Your task to perform on an android device: add a contact Image 0: 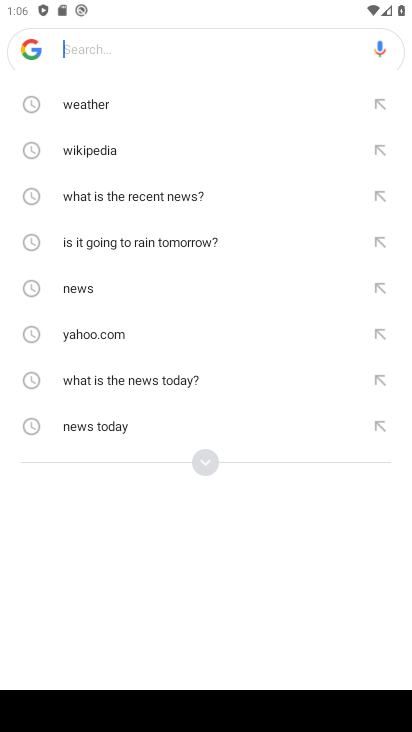
Step 0: press home button
Your task to perform on an android device: add a contact Image 1: 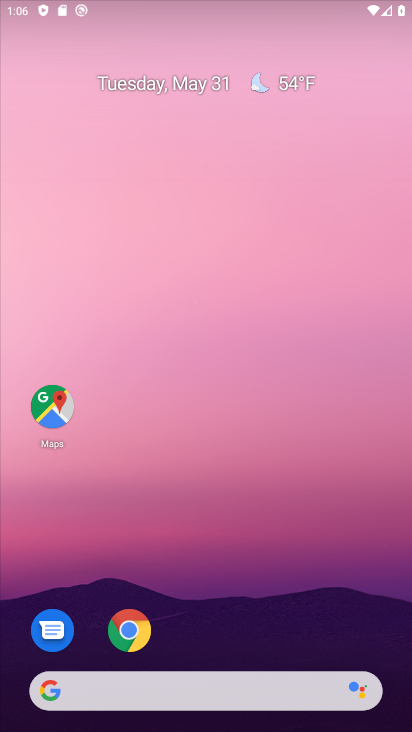
Step 1: drag from (196, 600) to (201, 45)
Your task to perform on an android device: add a contact Image 2: 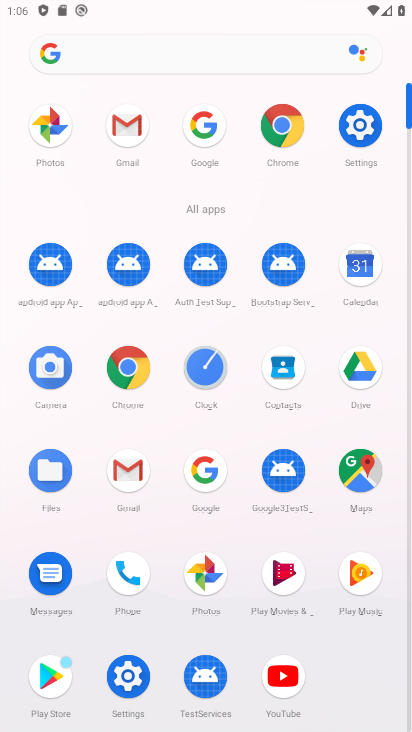
Step 2: click (294, 366)
Your task to perform on an android device: add a contact Image 3: 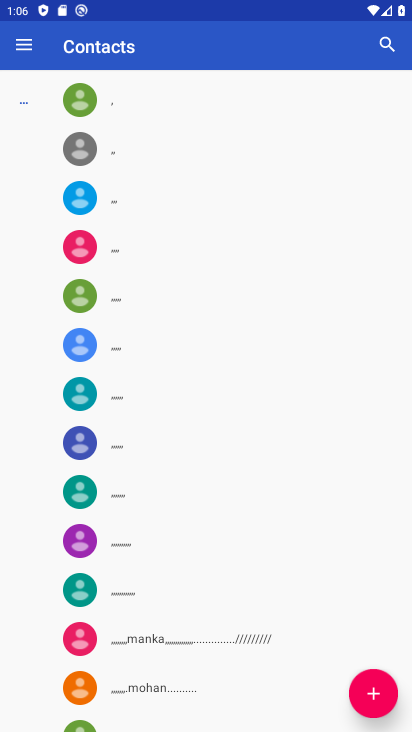
Step 3: click (368, 691)
Your task to perform on an android device: add a contact Image 4: 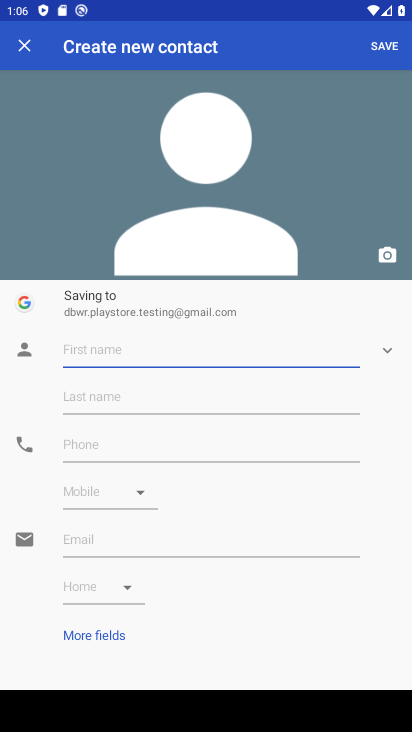
Step 4: type "uytyghgh"
Your task to perform on an android device: add a contact Image 5: 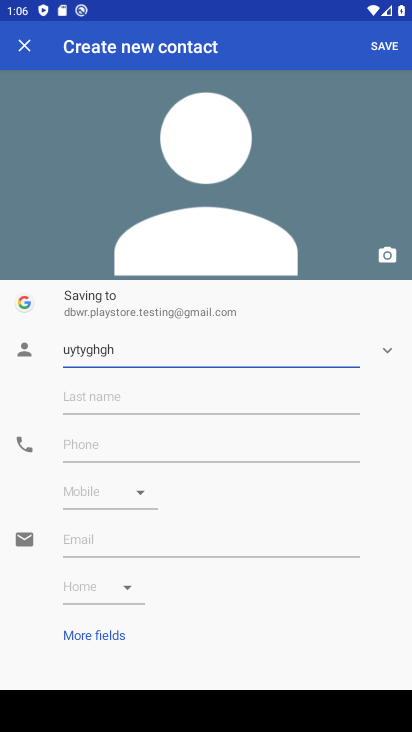
Step 5: click (375, 51)
Your task to perform on an android device: add a contact Image 6: 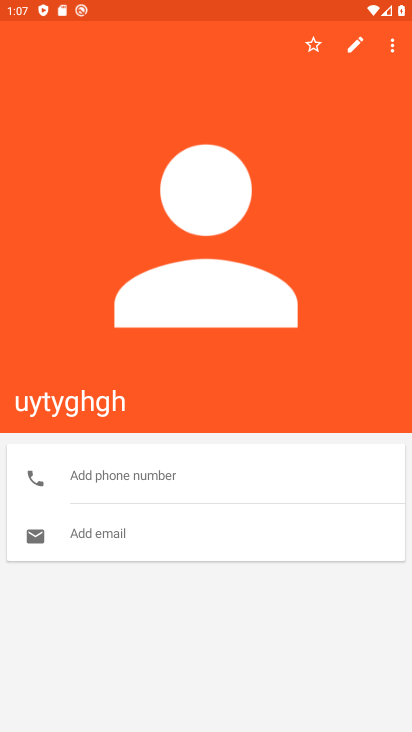
Step 6: task complete